Your task to perform on an android device: find which apps use the phone's location Image 0: 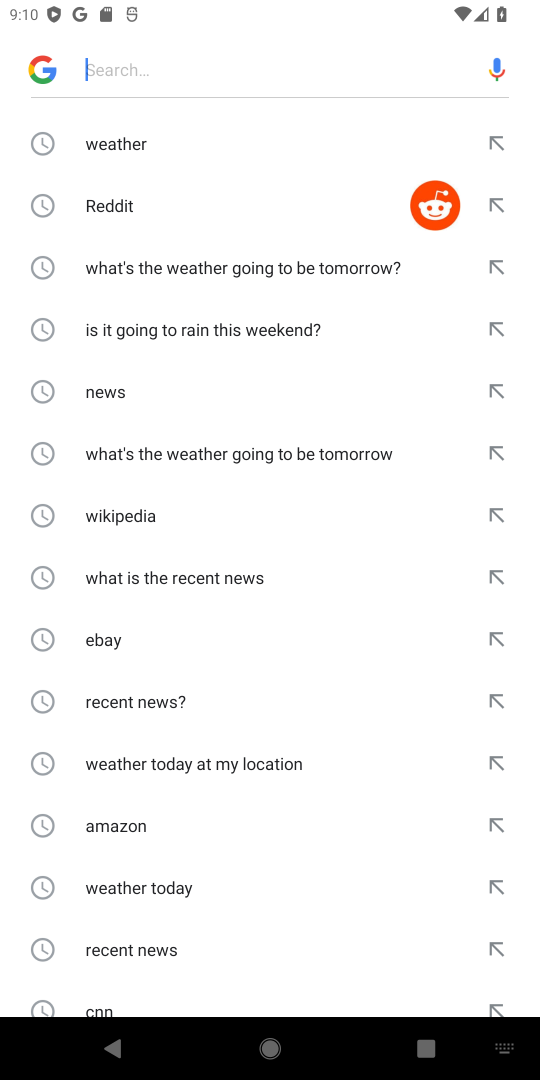
Step 0: press home button
Your task to perform on an android device: find which apps use the phone's location Image 1: 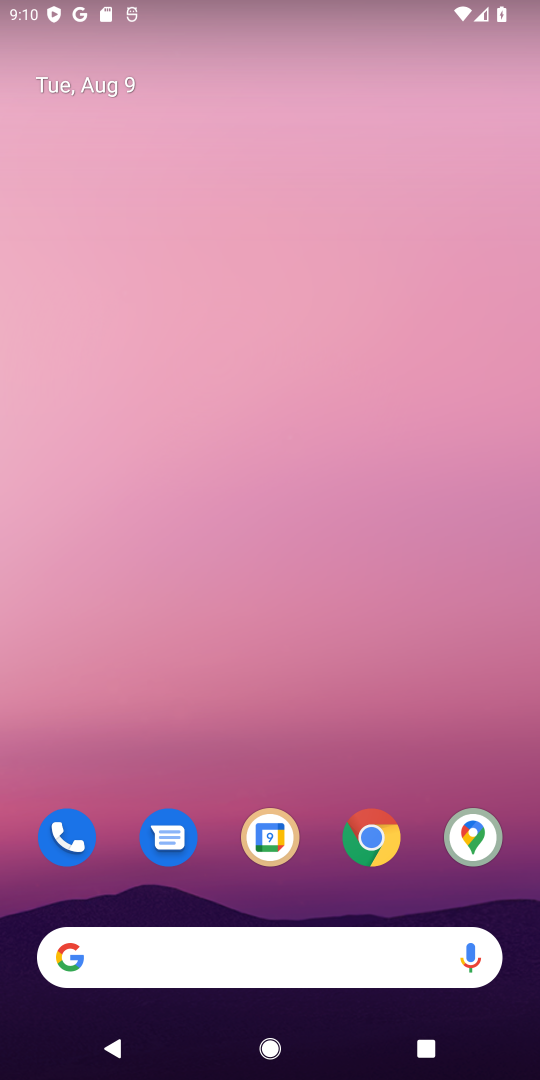
Step 1: drag from (328, 884) to (326, 128)
Your task to perform on an android device: find which apps use the phone's location Image 2: 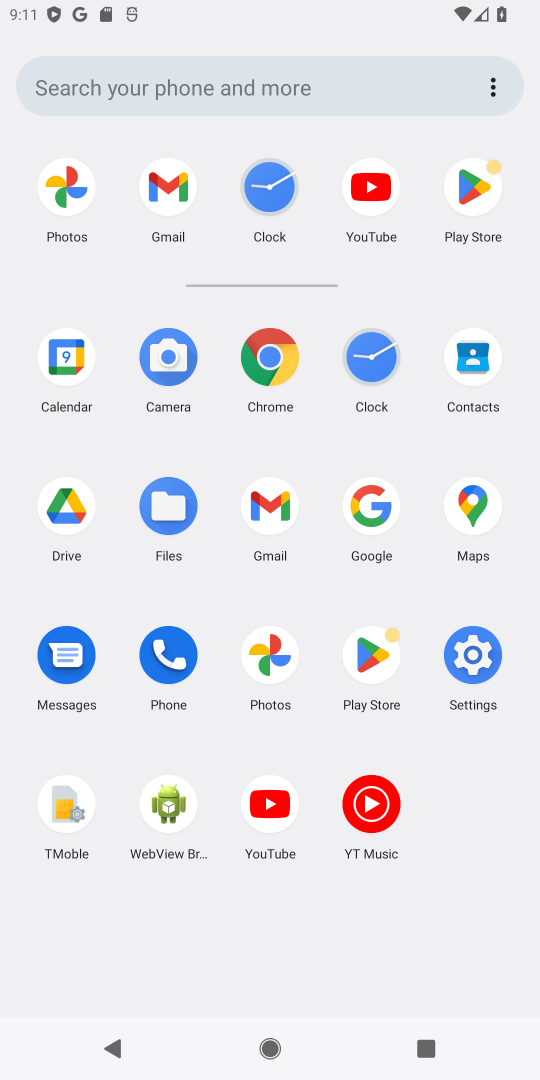
Step 2: click (481, 652)
Your task to perform on an android device: find which apps use the phone's location Image 3: 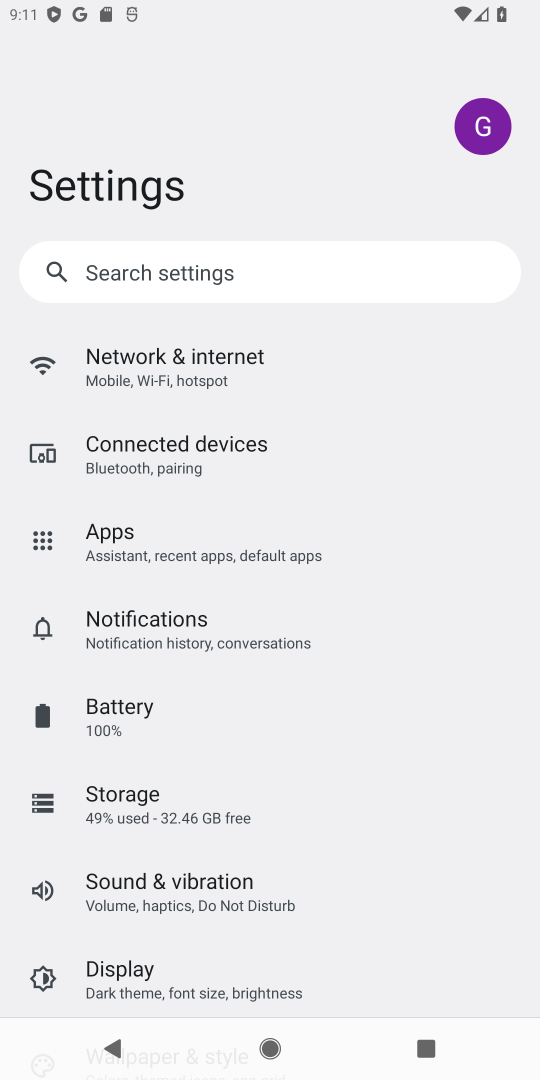
Step 3: drag from (169, 944) to (196, 532)
Your task to perform on an android device: find which apps use the phone's location Image 4: 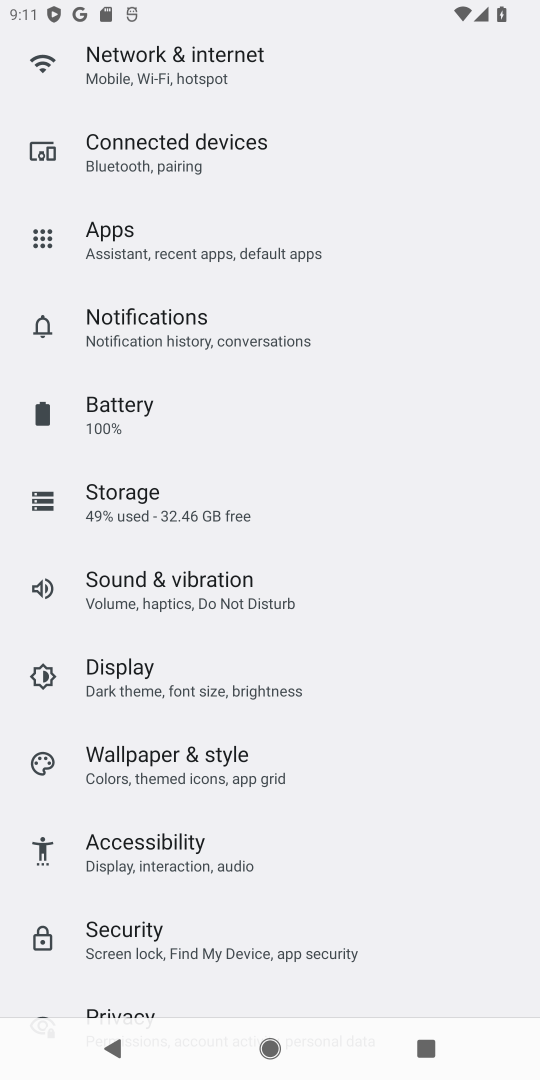
Step 4: drag from (156, 949) to (164, 573)
Your task to perform on an android device: find which apps use the phone's location Image 5: 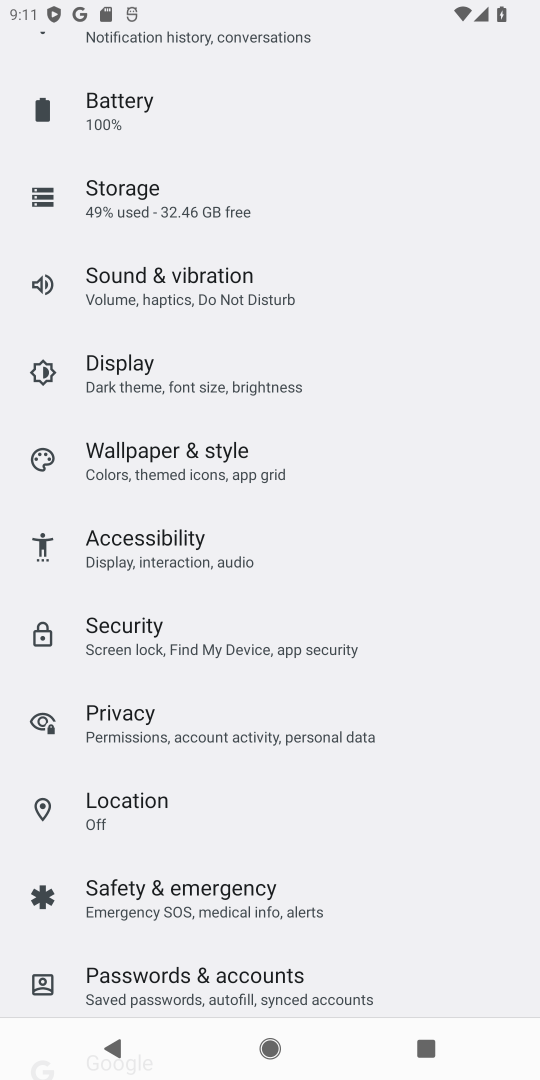
Step 5: drag from (114, 960) to (136, 525)
Your task to perform on an android device: find which apps use the phone's location Image 6: 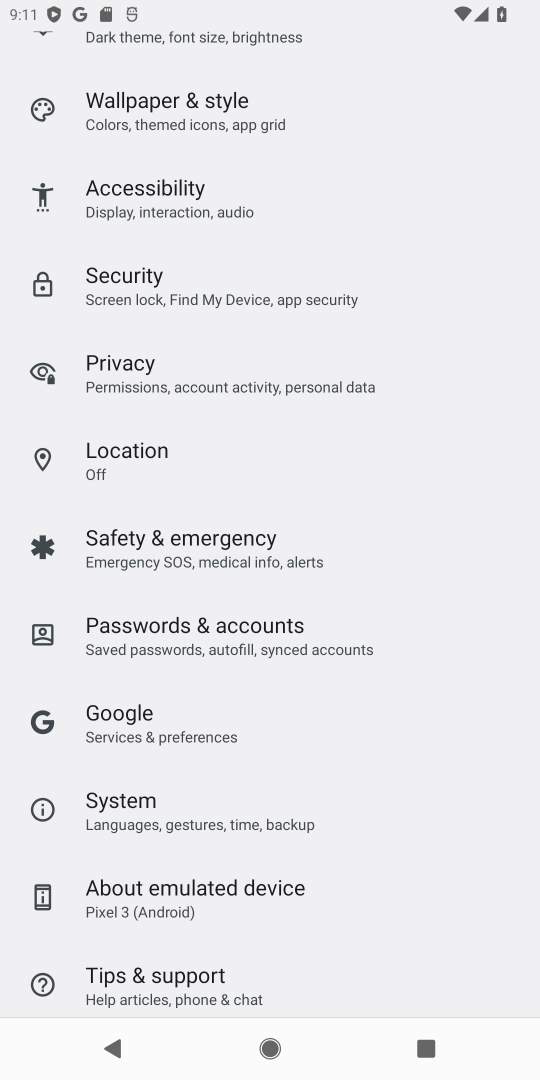
Step 6: click (124, 430)
Your task to perform on an android device: find which apps use the phone's location Image 7: 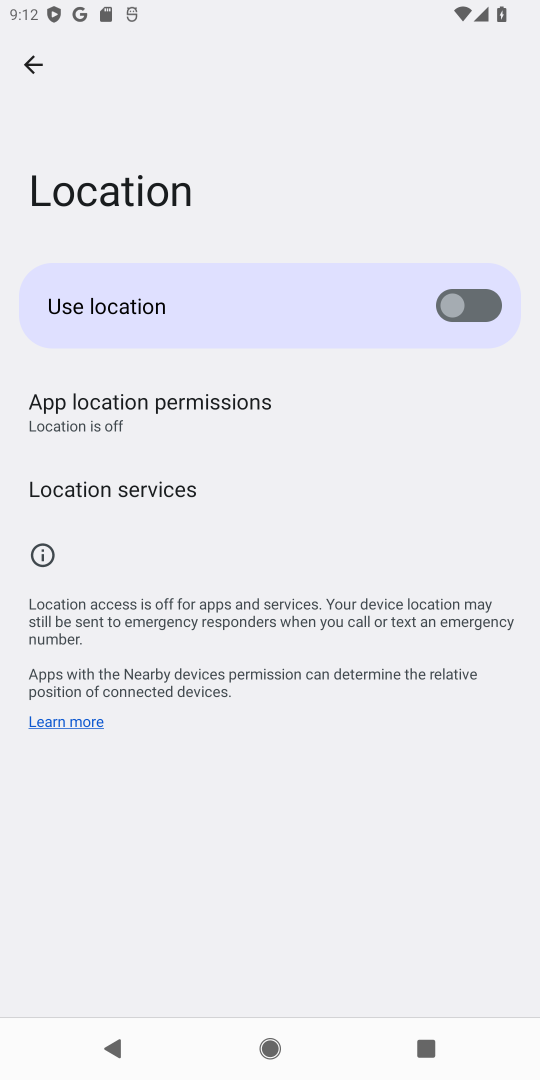
Step 7: click (103, 412)
Your task to perform on an android device: find which apps use the phone's location Image 8: 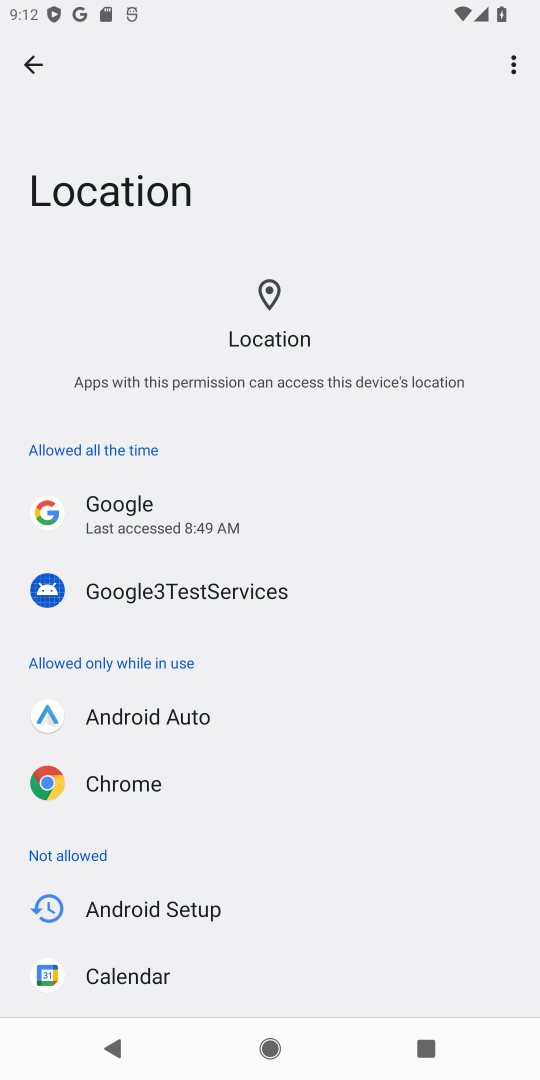
Step 8: task complete